Your task to perform on an android device: read, delete, or share a saved page in the chrome app Image 0: 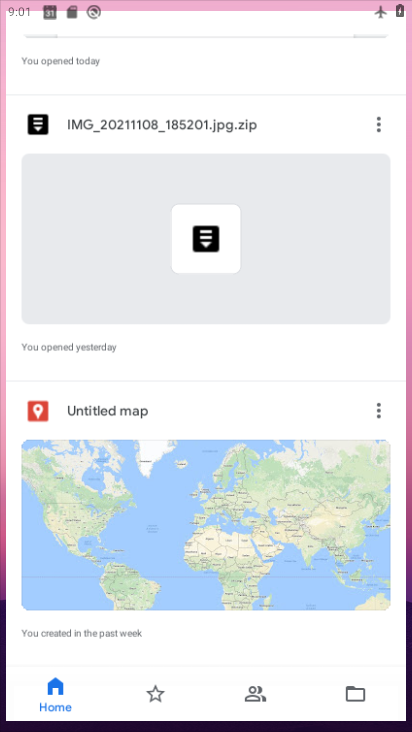
Step 0: drag from (187, 593) to (193, 76)
Your task to perform on an android device: read, delete, or share a saved page in the chrome app Image 1: 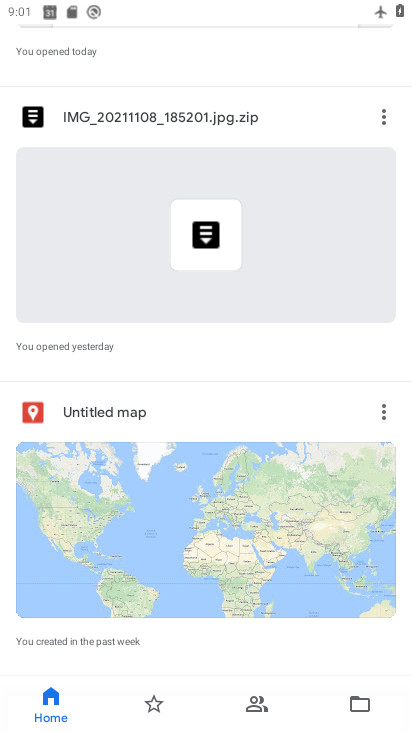
Step 1: press home button
Your task to perform on an android device: read, delete, or share a saved page in the chrome app Image 2: 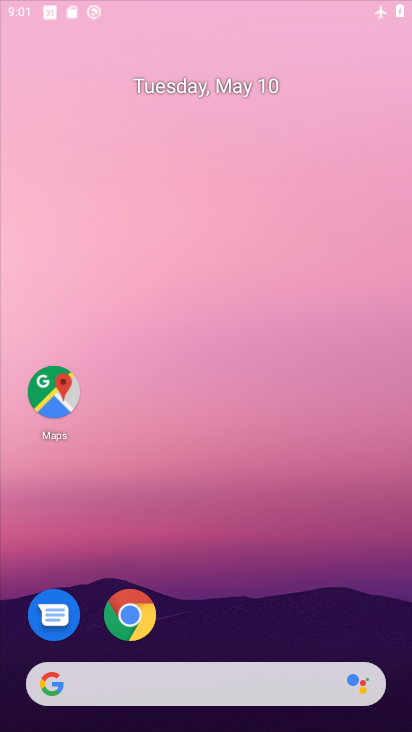
Step 2: drag from (198, 588) to (261, 170)
Your task to perform on an android device: read, delete, or share a saved page in the chrome app Image 3: 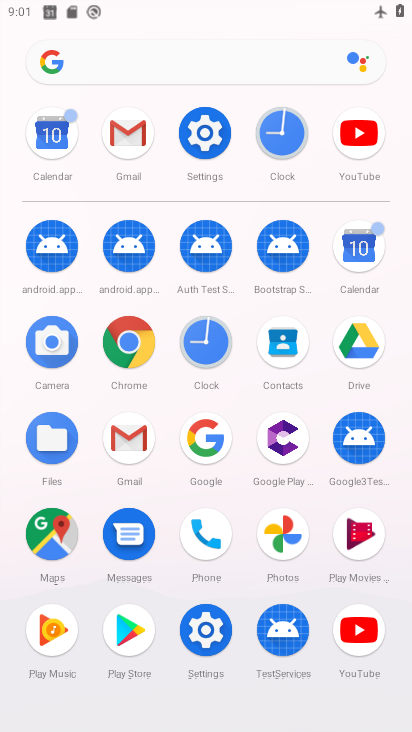
Step 3: click (130, 349)
Your task to perform on an android device: read, delete, or share a saved page in the chrome app Image 4: 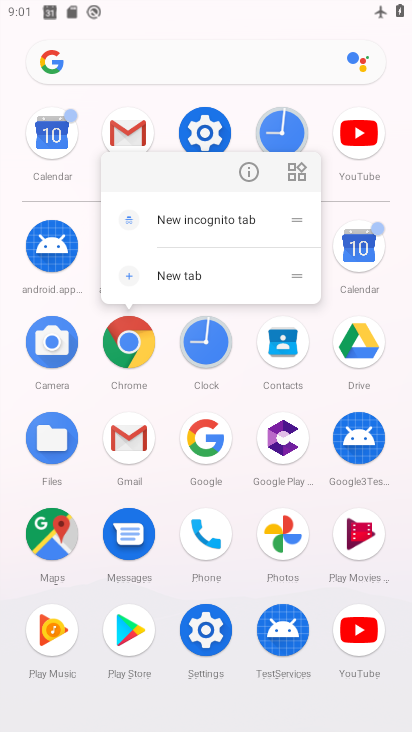
Step 4: click (245, 164)
Your task to perform on an android device: read, delete, or share a saved page in the chrome app Image 5: 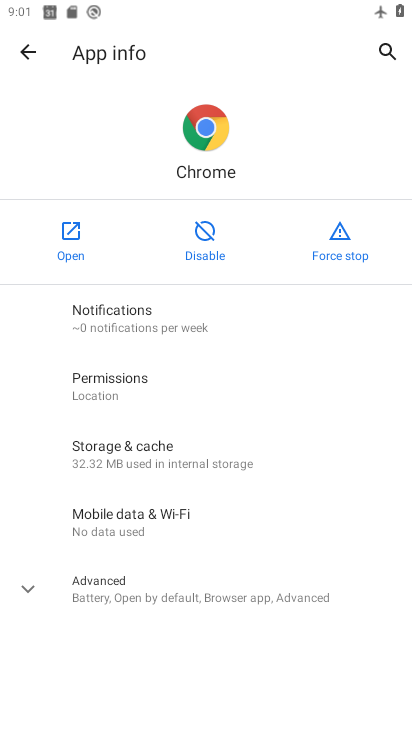
Step 5: click (72, 250)
Your task to perform on an android device: read, delete, or share a saved page in the chrome app Image 6: 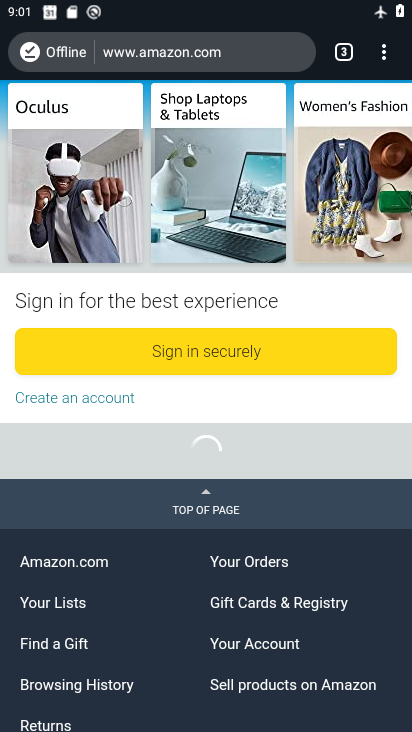
Step 6: task complete